Your task to perform on an android device: What's the weather? Image 0: 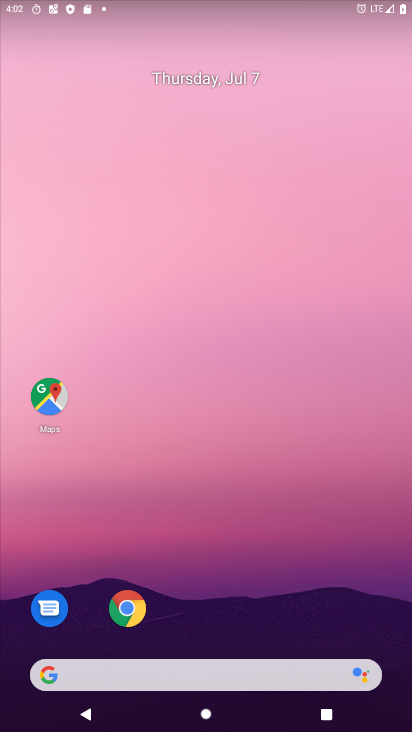
Step 0: drag from (240, 716) to (208, 95)
Your task to perform on an android device: What's the weather? Image 1: 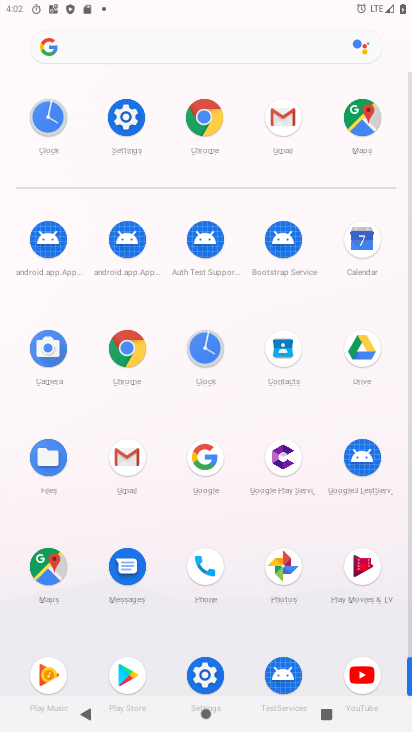
Step 1: click (210, 465)
Your task to perform on an android device: What's the weather? Image 2: 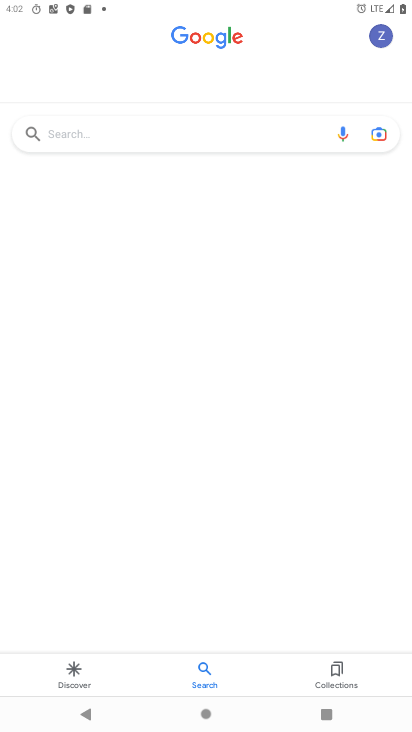
Step 2: click (218, 140)
Your task to perform on an android device: What's the weather? Image 3: 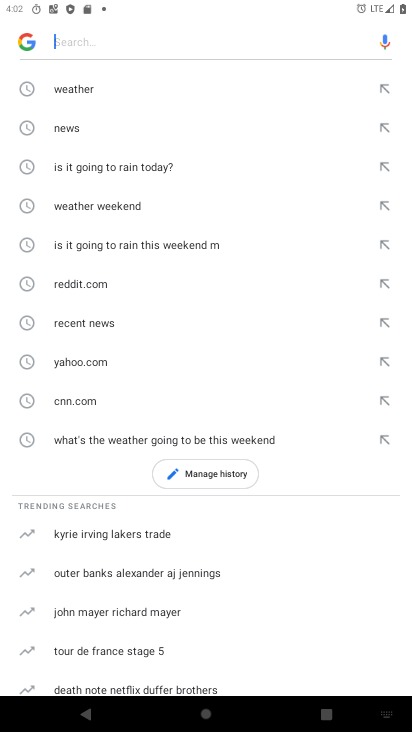
Step 3: click (67, 84)
Your task to perform on an android device: What's the weather? Image 4: 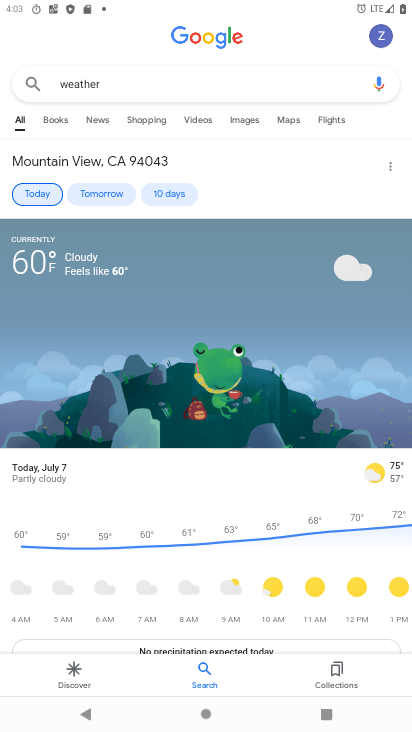
Step 4: click (30, 196)
Your task to perform on an android device: What's the weather? Image 5: 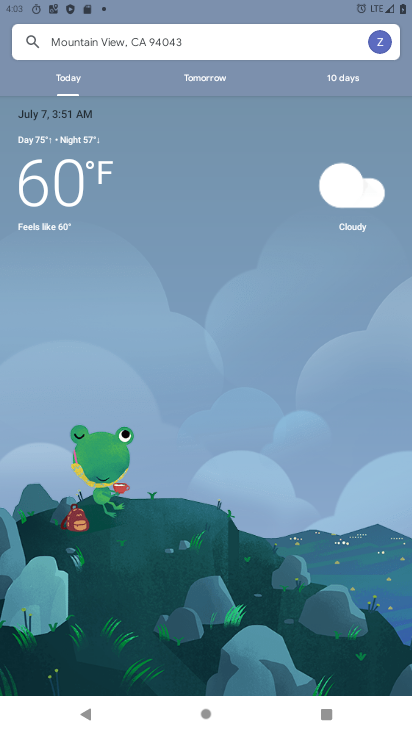
Step 5: task complete